Your task to perform on an android device: change alarm snooze length Image 0: 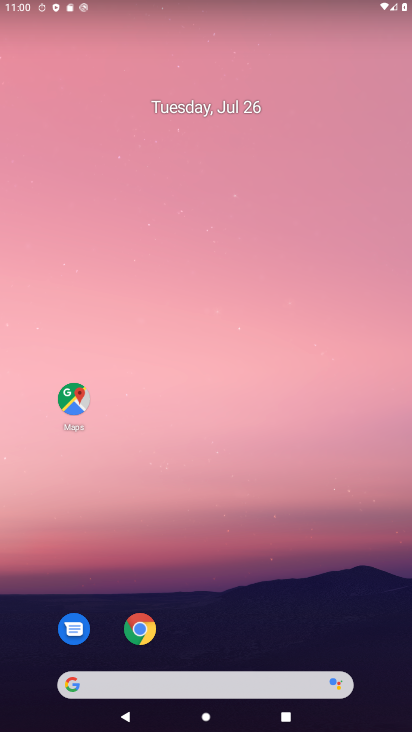
Step 0: drag from (340, 627) to (154, 1)
Your task to perform on an android device: change alarm snooze length Image 1: 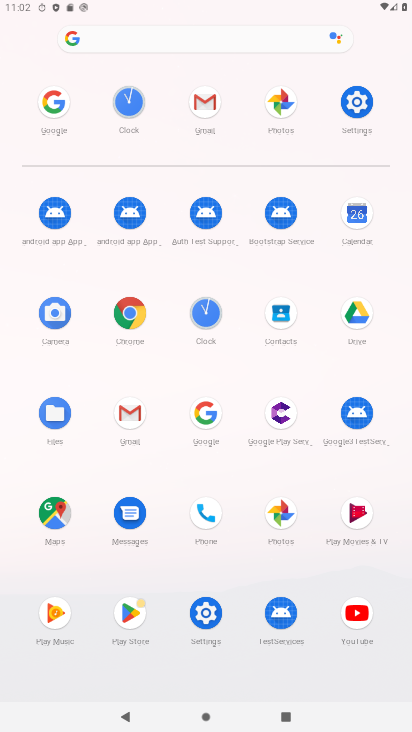
Step 1: click (208, 303)
Your task to perform on an android device: change alarm snooze length Image 2: 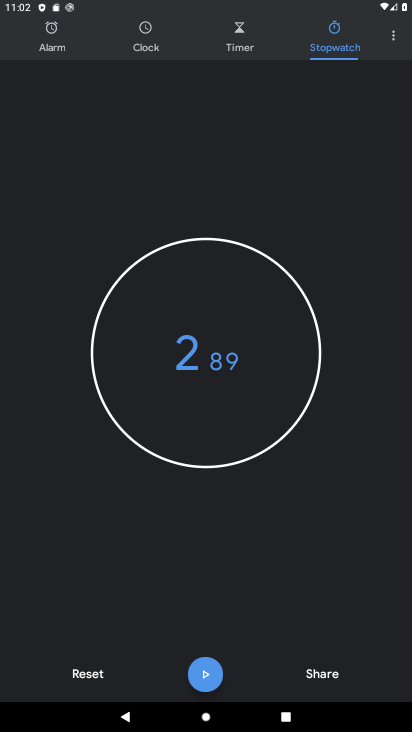
Step 2: click (388, 34)
Your task to perform on an android device: change alarm snooze length Image 3: 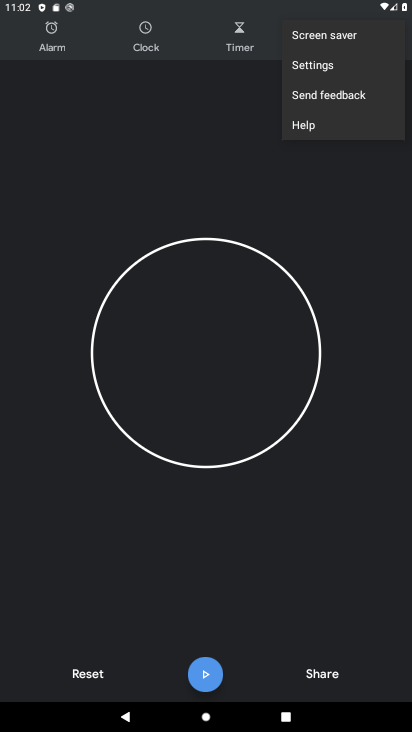
Step 3: click (333, 64)
Your task to perform on an android device: change alarm snooze length Image 4: 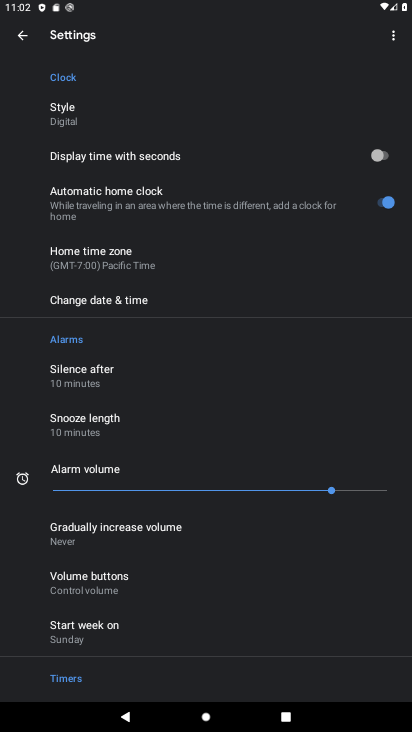
Step 4: click (100, 430)
Your task to perform on an android device: change alarm snooze length Image 5: 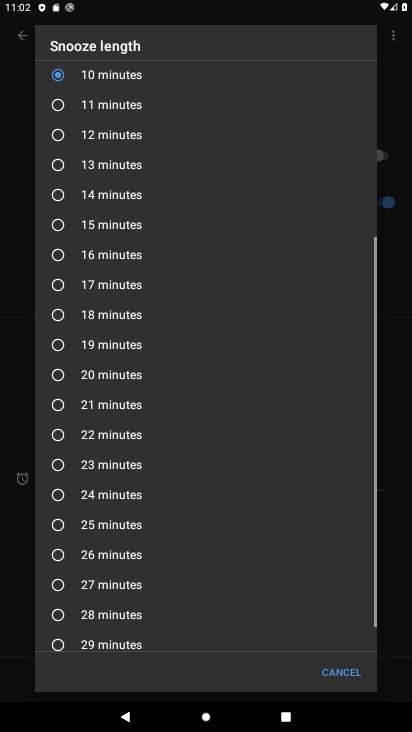
Step 5: click (118, 436)
Your task to perform on an android device: change alarm snooze length Image 6: 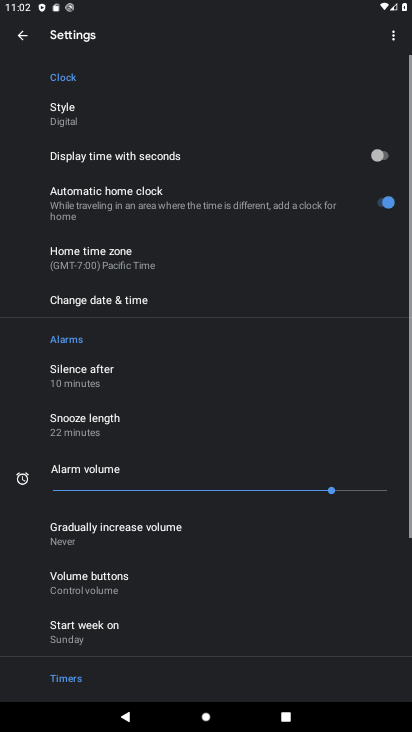
Step 6: task complete